Your task to perform on an android device: turn off wifi Image 0: 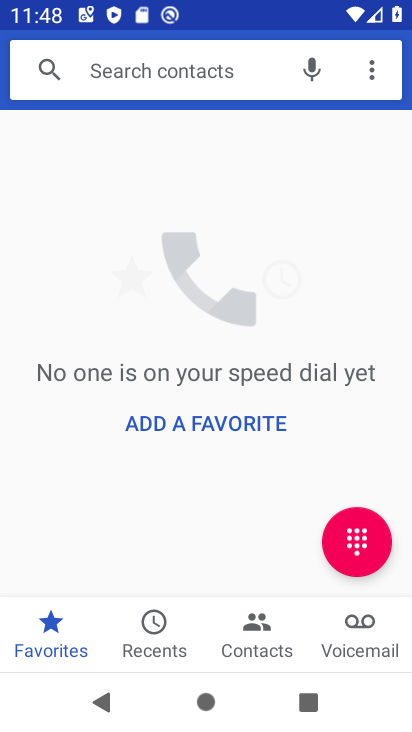
Step 0: press home button
Your task to perform on an android device: turn off wifi Image 1: 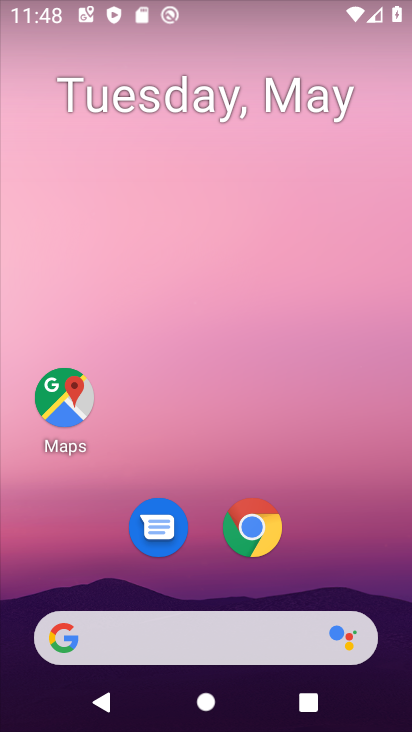
Step 1: drag from (174, 570) to (179, 124)
Your task to perform on an android device: turn off wifi Image 2: 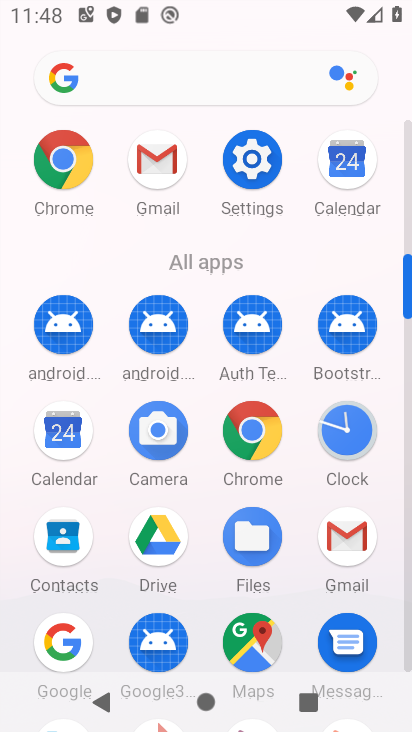
Step 2: click (258, 176)
Your task to perform on an android device: turn off wifi Image 3: 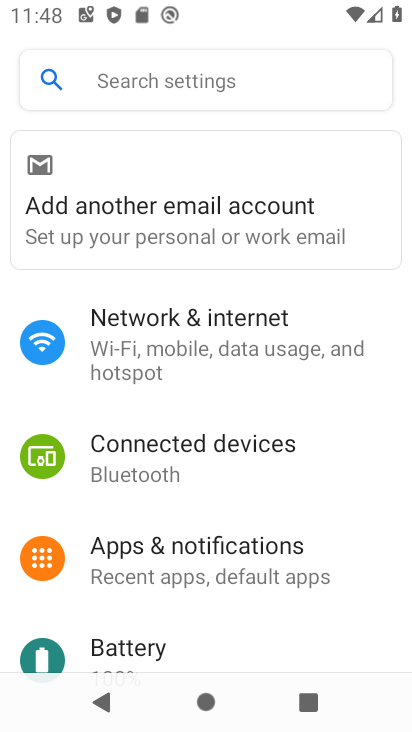
Step 3: click (242, 354)
Your task to perform on an android device: turn off wifi Image 4: 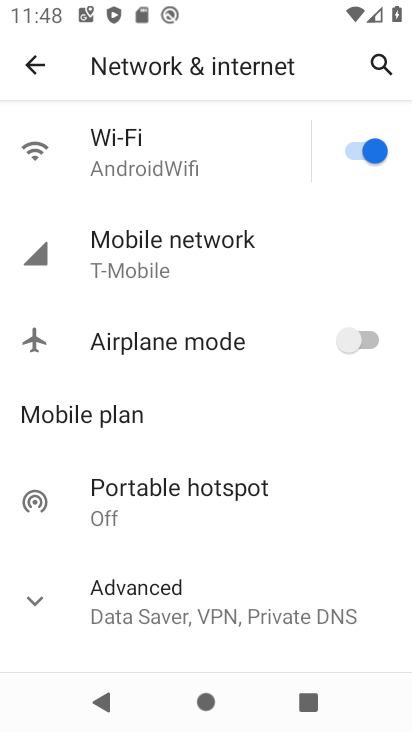
Step 4: click (351, 140)
Your task to perform on an android device: turn off wifi Image 5: 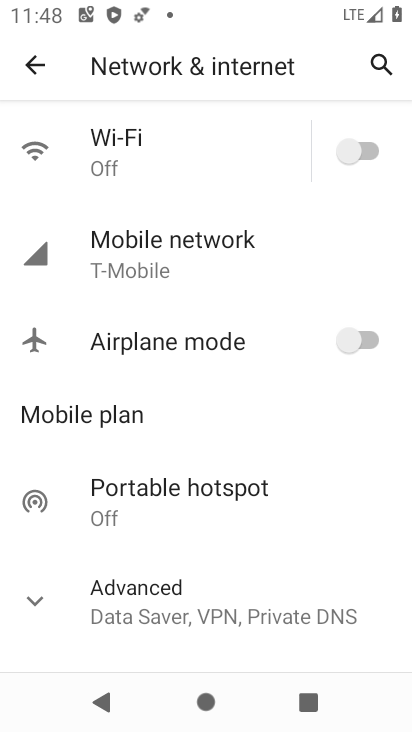
Step 5: task complete